Your task to perform on an android device: turn pop-ups on in chrome Image 0: 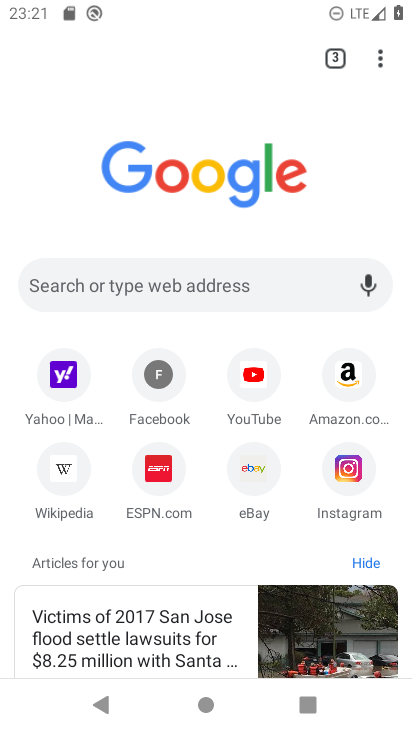
Step 0: click (380, 65)
Your task to perform on an android device: turn pop-ups on in chrome Image 1: 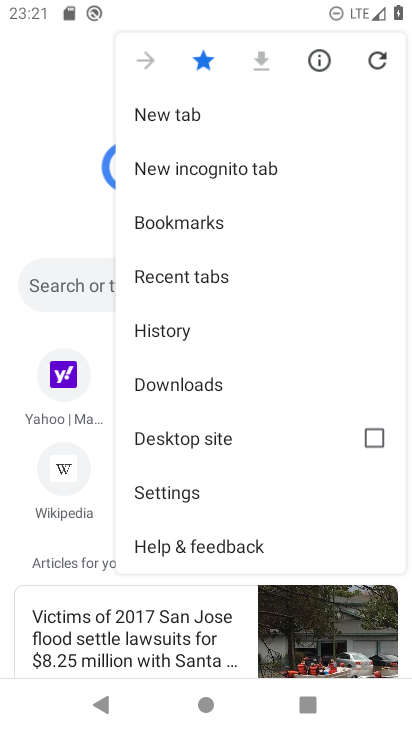
Step 1: click (180, 486)
Your task to perform on an android device: turn pop-ups on in chrome Image 2: 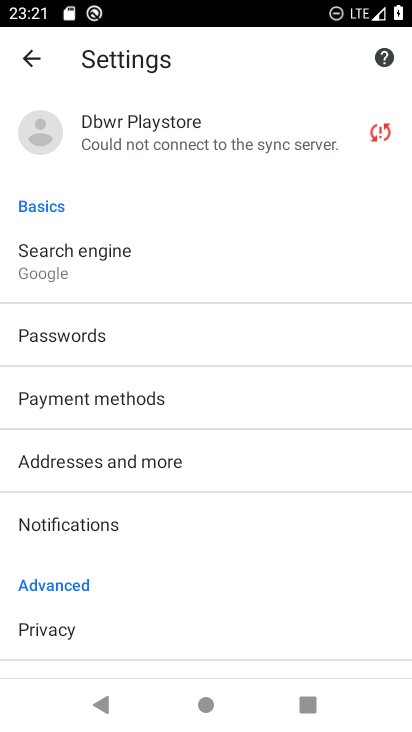
Step 2: drag from (240, 597) to (278, 236)
Your task to perform on an android device: turn pop-ups on in chrome Image 3: 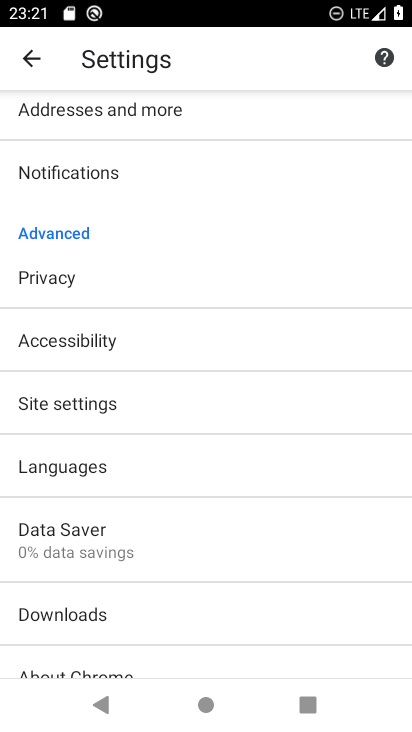
Step 3: drag from (227, 649) to (239, 365)
Your task to perform on an android device: turn pop-ups on in chrome Image 4: 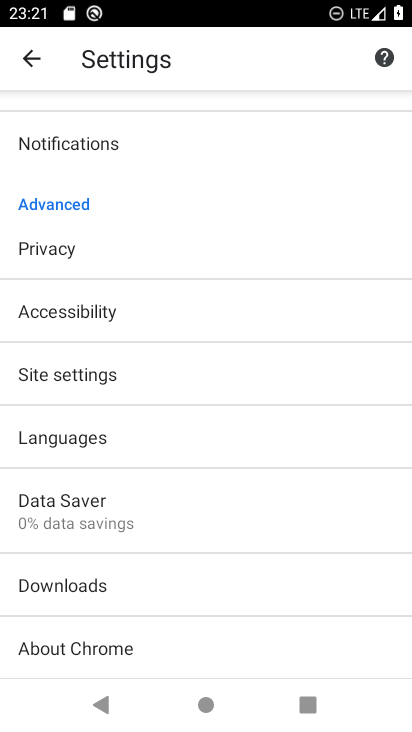
Step 4: click (64, 381)
Your task to perform on an android device: turn pop-ups on in chrome Image 5: 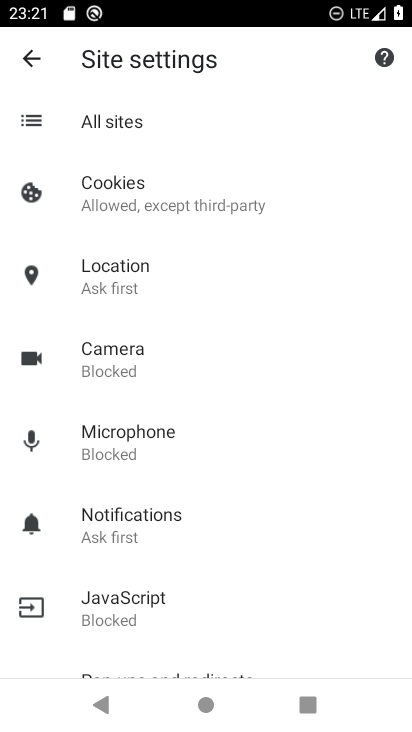
Step 5: drag from (243, 611) to (252, 317)
Your task to perform on an android device: turn pop-ups on in chrome Image 6: 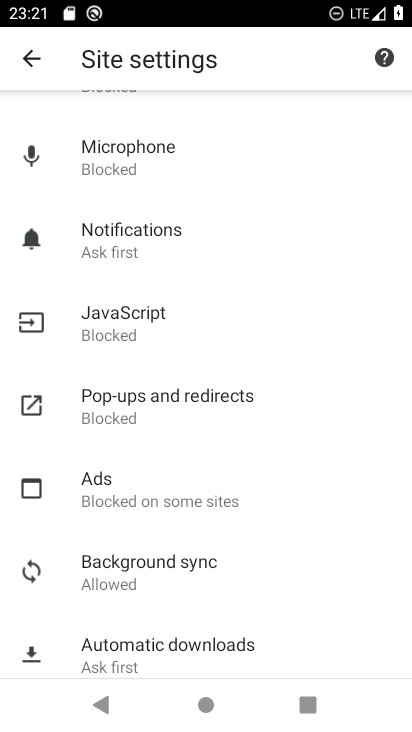
Step 6: click (126, 403)
Your task to perform on an android device: turn pop-ups on in chrome Image 7: 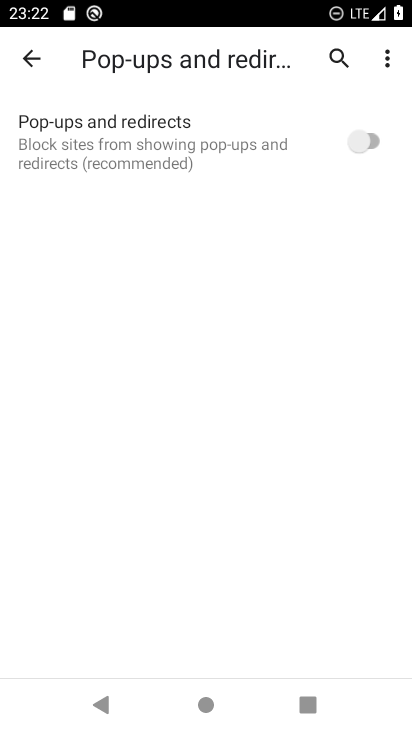
Step 7: click (365, 143)
Your task to perform on an android device: turn pop-ups on in chrome Image 8: 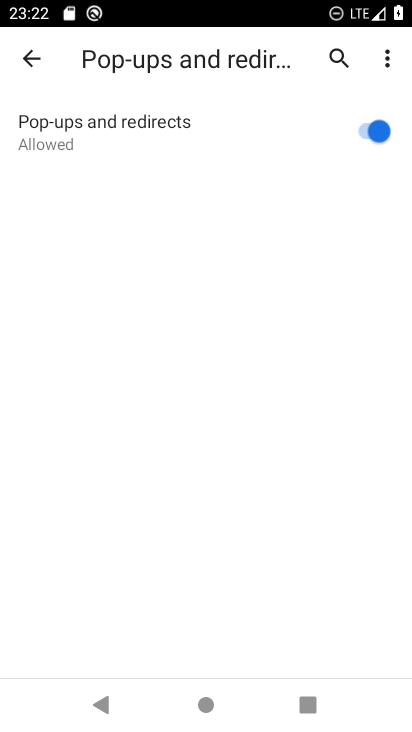
Step 8: task complete